Your task to perform on an android device: Check the news Image 0: 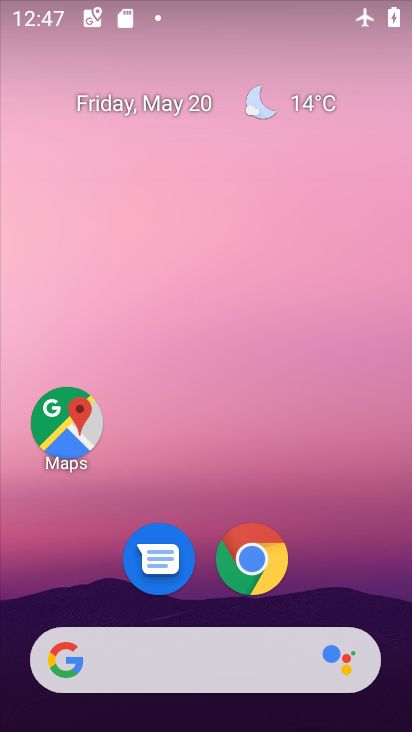
Step 0: click (238, 565)
Your task to perform on an android device: Check the news Image 1: 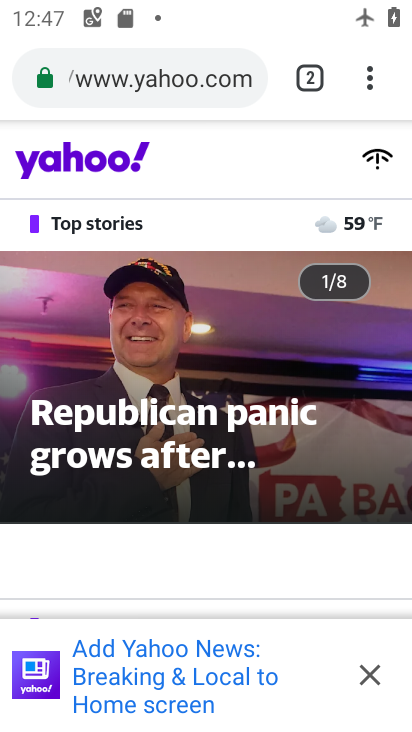
Step 1: click (145, 87)
Your task to perform on an android device: Check the news Image 2: 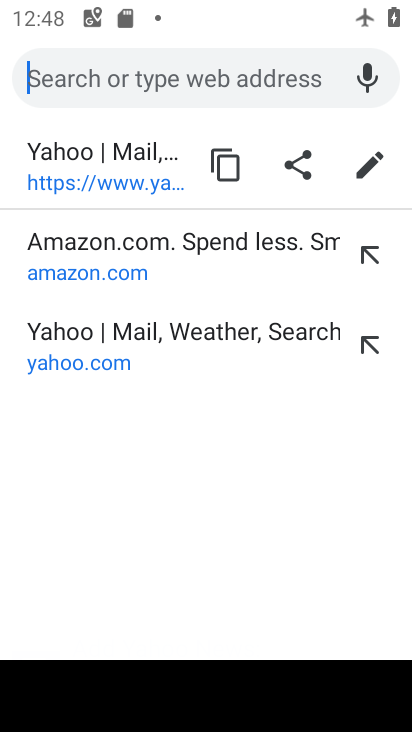
Step 2: type "news"
Your task to perform on an android device: Check the news Image 3: 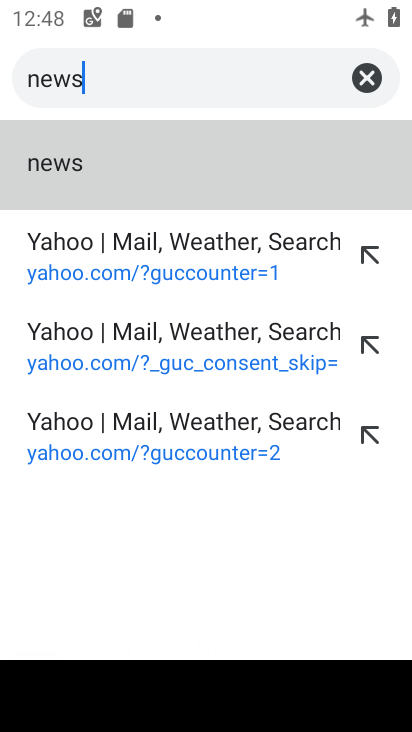
Step 3: click (96, 183)
Your task to perform on an android device: Check the news Image 4: 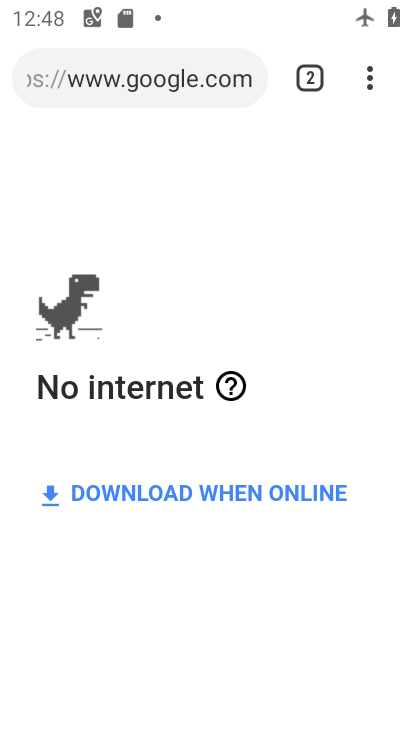
Step 4: task complete